Your task to perform on an android device: turn off picture-in-picture Image 0: 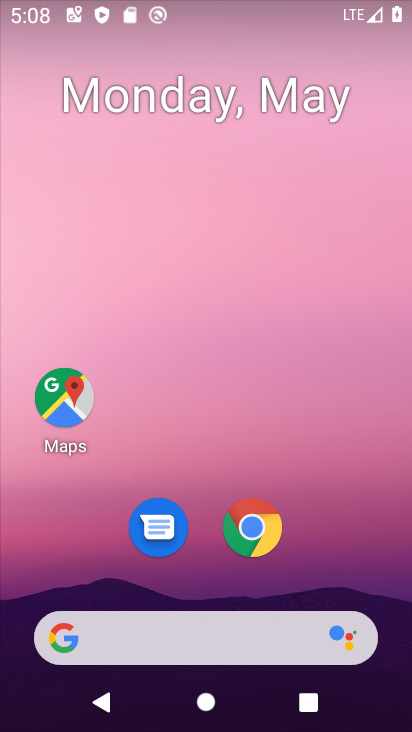
Step 0: click (241, 524)
Your task to perform on an android device: turn off picture-in-picture Image 1: 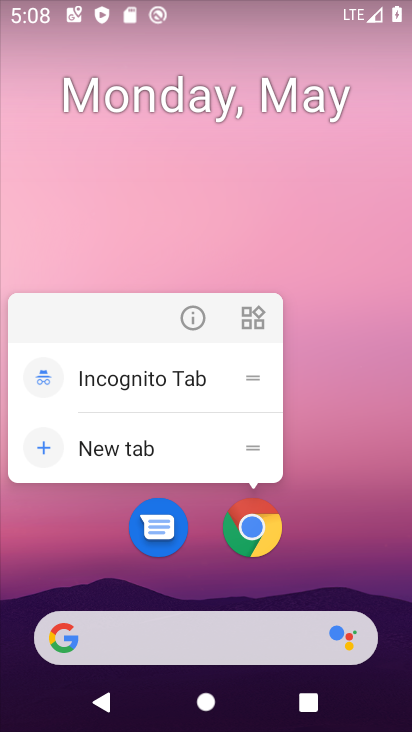
Step 1: click (195, 316)
Your task to perform on an android device: turn off picture-in-picture Image 2: 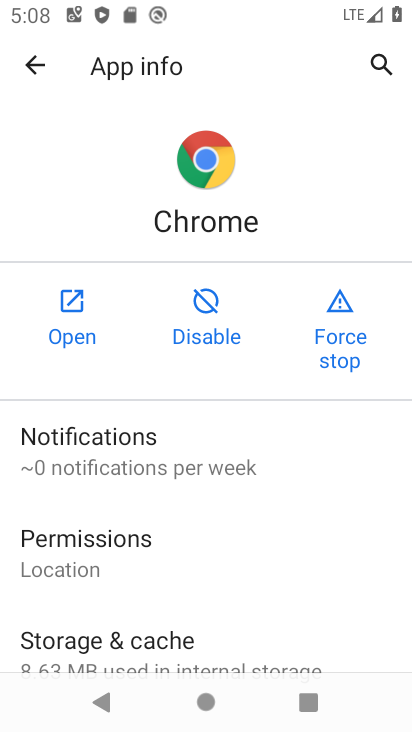
Step 2: drag from (268, 632) to (291, 60)
Your task to perform on an android device: turn off picture-in-picture Image 3: 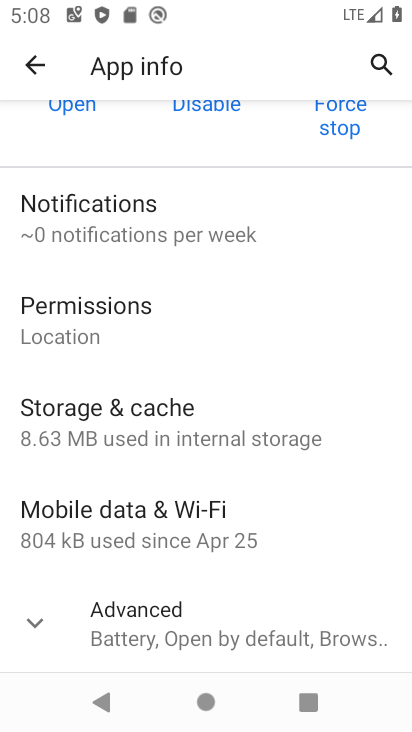
Step 3: drag from (319, 611) to (302, 195)
Your task to perform on an android device: turn off picture-in-picture Image 4: 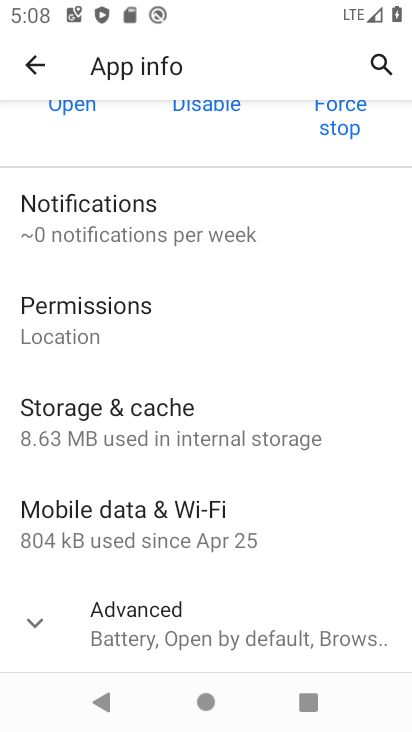
Step 4: drag from (283, 603) to (266, 176)
Your task to perform on an android device: turn off picture-in-picture Image 5: 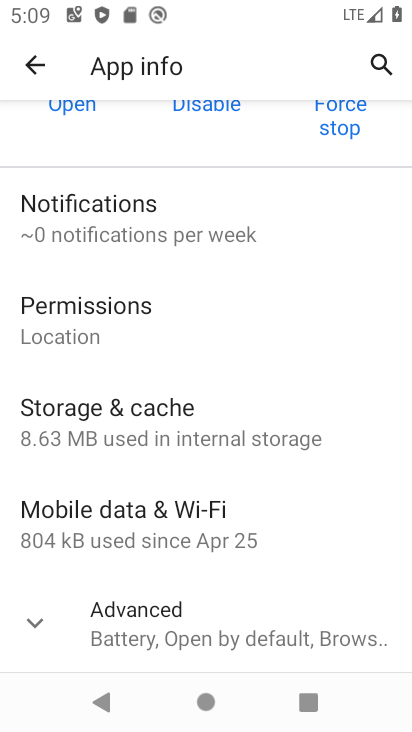
Step 5: click (45, 619)
Your task to perform on an android device: turn off picture-in-picture Image 6: 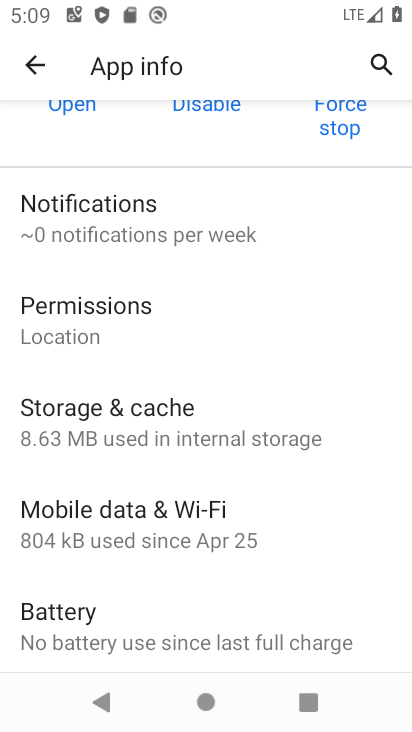
Step 6: drag from (147, 624) to (151, 281)
Your task to perform on an android device: turn off picture-in-picture Image 7: 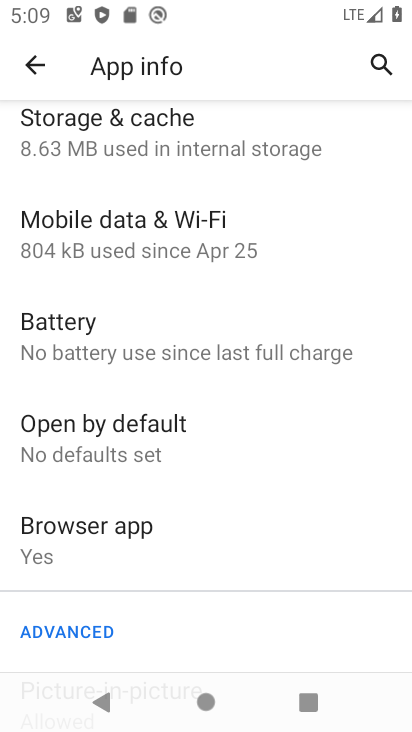
Step 7: drag from (241, 602) to (268, 298)
Your task to perform on an android device: turn off picture-in-picture Image 8: 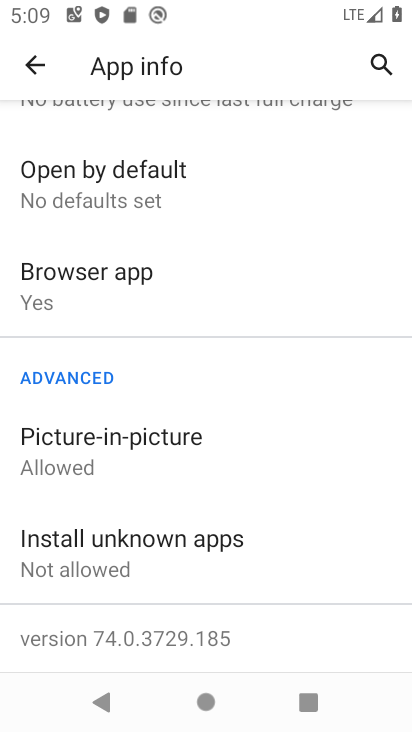
Step 8: click (59, 445)
Your task to perform on an android device: turn off picture-in-picture Image 9: 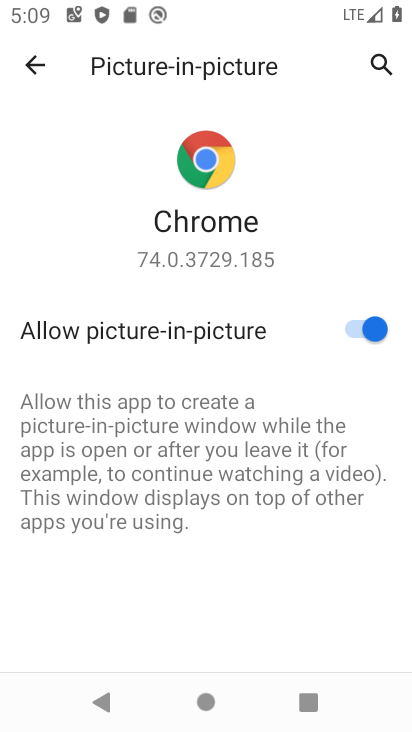
Step 9: click (116, 458)
Your task to perform on an android device: turn off picture-in-picture Image 10: 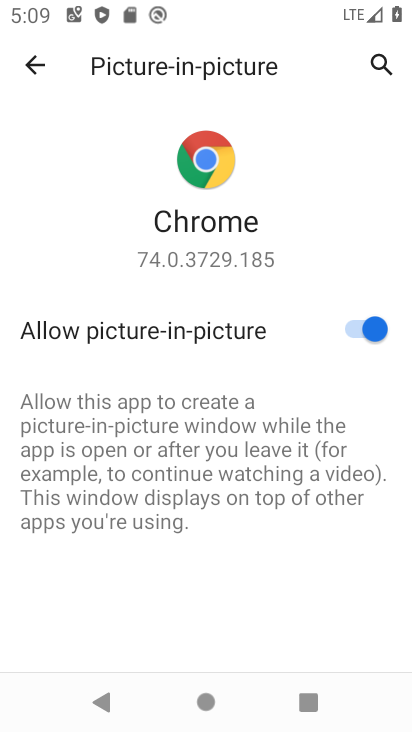
Step 10: click (356, 339)
Your task to perform on an android device: turn off picture-in-picture Image 11: 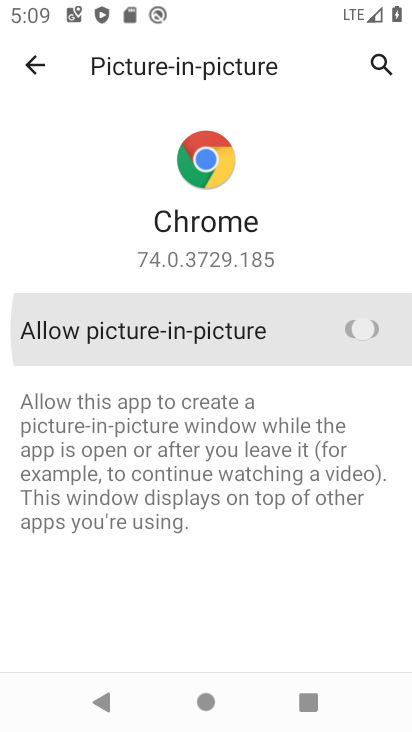
Step 11: click (351, 329)
Your task to perform on an android device: turn off picture-in-picture Image 12: 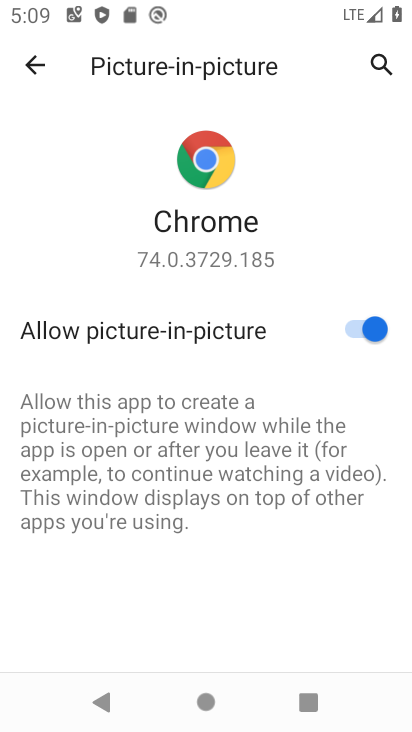
Step 12: click (337, 323)
Your task to perform on an android device: turn off picture-in-picture Image 13: 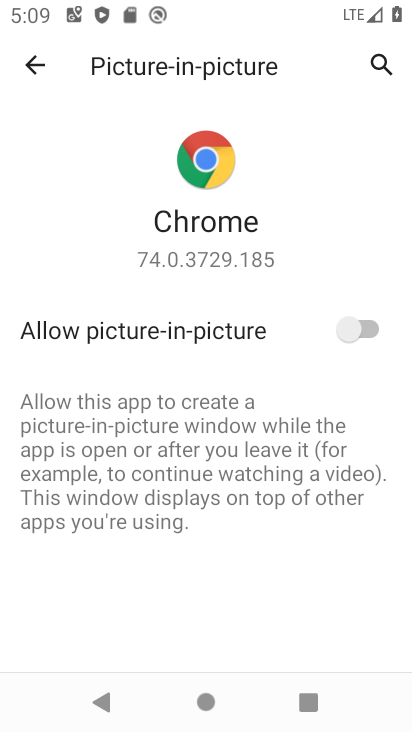
Step 13: task complete